Your task to perform on an android device: set default search engine in the chrome app Image 0: 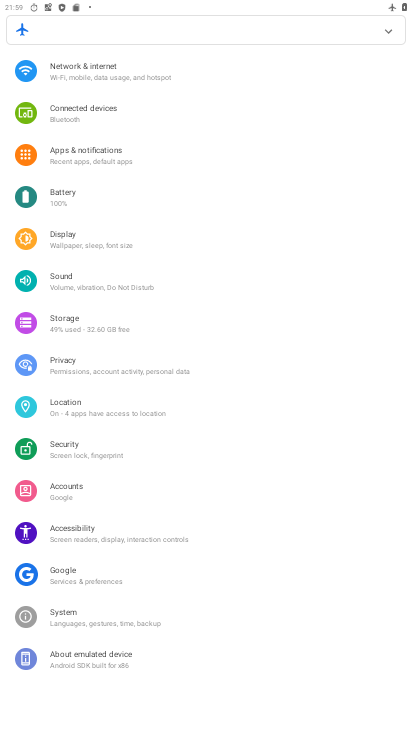
Step 0: press home button
Your task to perform on an android device: set default search engine in the chrome app Image 1: 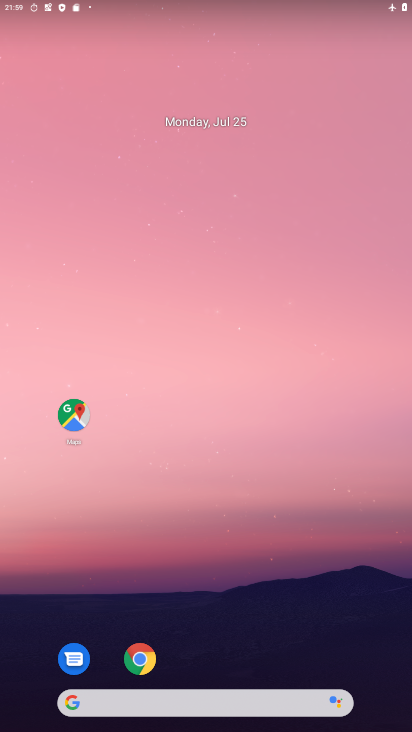
Step 1: click (153, 657)
Your task to perform on an android device: set default search engine in the chrome app Image 2: 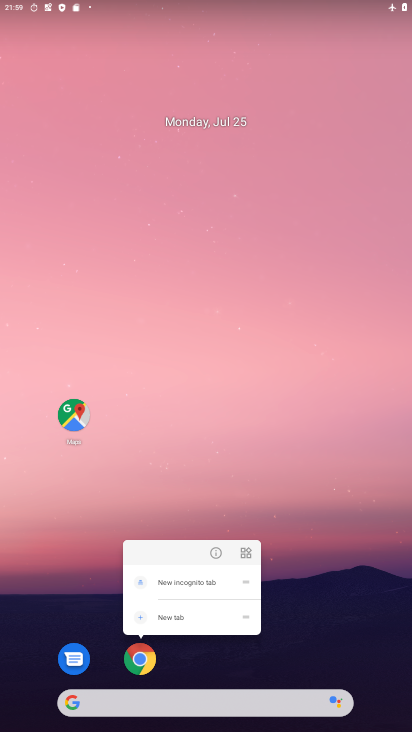
Step 2: click (153, 657)
Your task to perform on an android device: set default search engine in the chrome app Image 3: 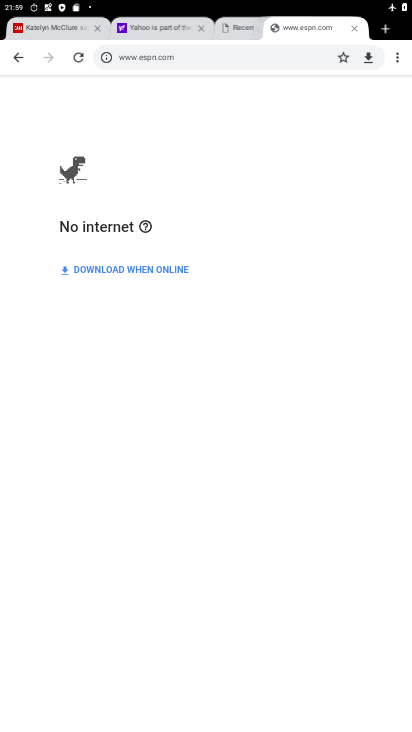
Step 3: click (393, 59)
Your task to perform on an android device: set default search engine in the chrome app Image 4: 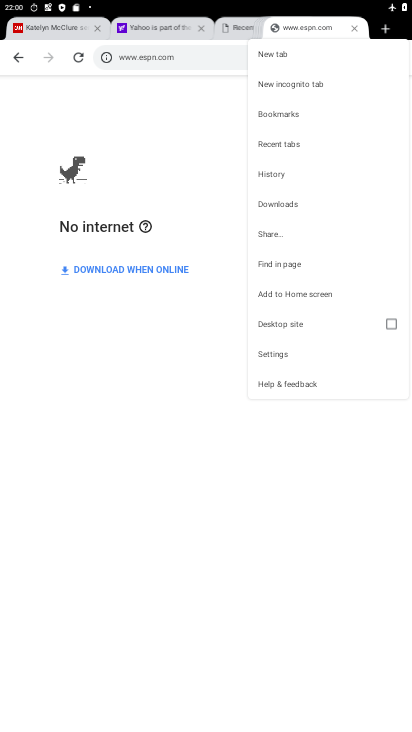
Step 4: click (294, 356)
Your task to perform on an android device: set default search engine in the chrome app Image 5: 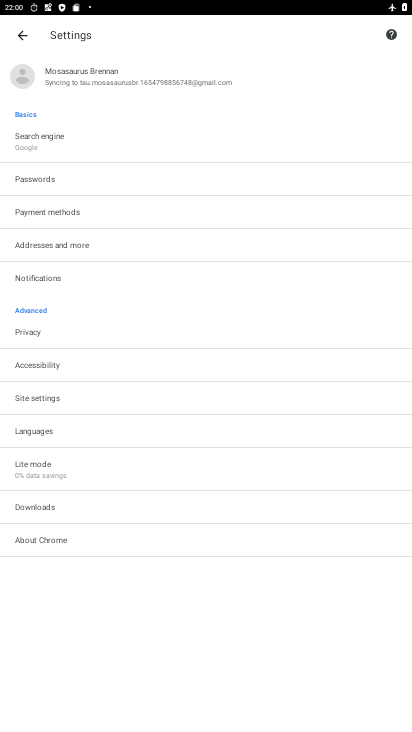
Step 5: click (78, 143)
Your task to perform on an android device: set default search engine in the chrome app Image 6: 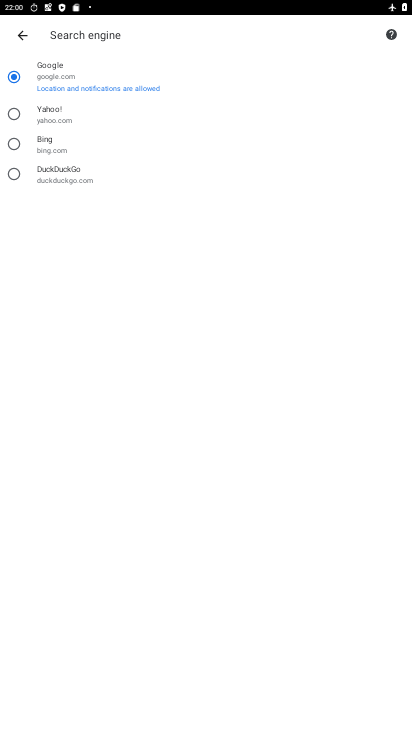
Step 6: task complete